Your task to perform on an android device: empty trash in the gmail app Image 0: 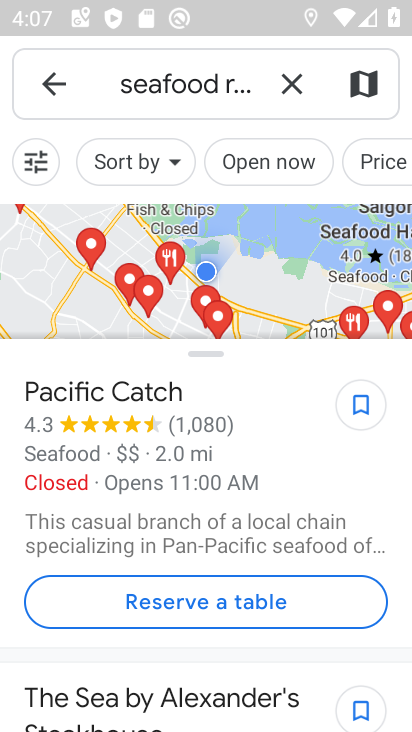
Step 0: press back button
Your task to perform on an android device: empty trash in the gmail app Image 1: 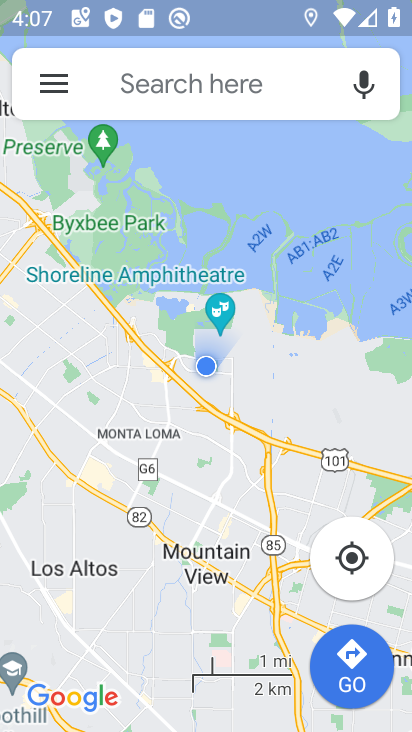
Step 1: press back button
Your task to perform on an android device: empty trash in the gmail app Image 2: 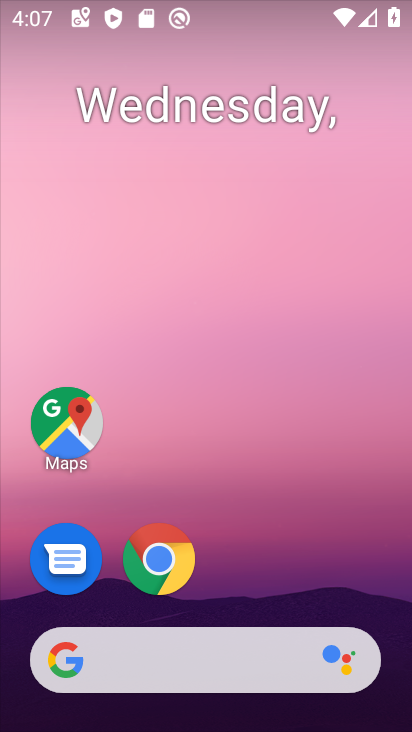
Step 2: drag from (245, 607) to (327, 7)
Your task to perform on an android device: empty trash in the gmail app Image 3: 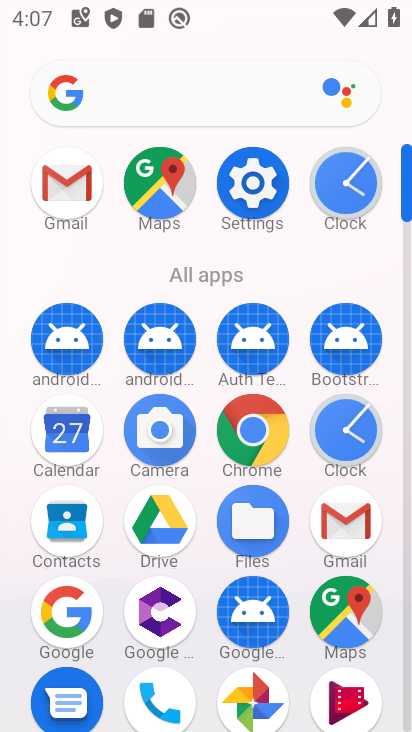
Step 3: click (62, 188)
Your task to perform on an android device: empty trash in the gmail app Image 4: 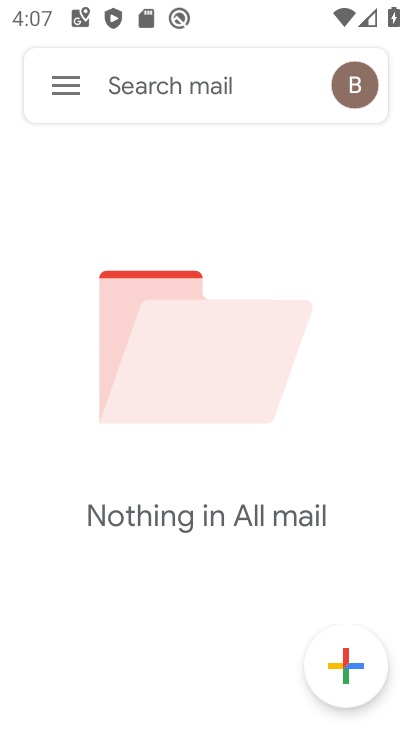
Step 4: click (69, 98)
Your task to perform on an android device: empty trash in the gmail app Image 5: 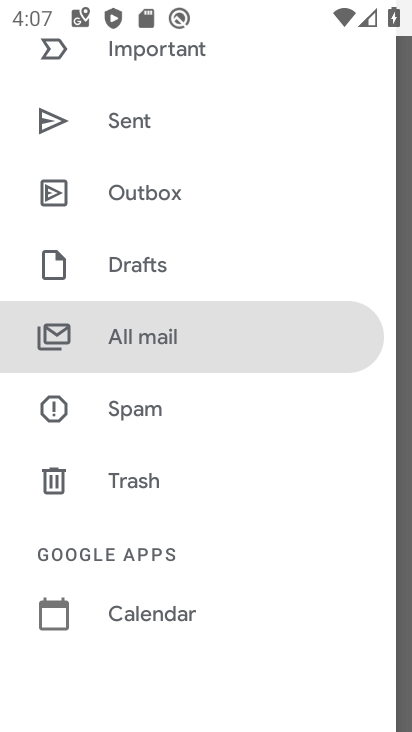
Step 5: click (166, 486)
Your task to perform on an android device: empty trash in the gmail app Image 6: 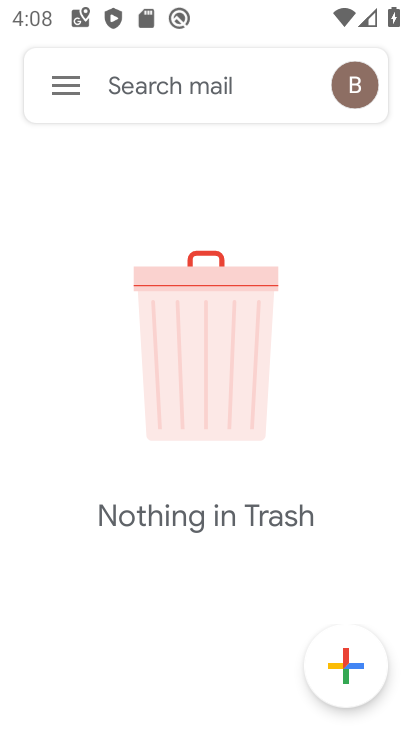
Step 6: task complete